Your task to perform on an android device: Show me recent news Image 0: 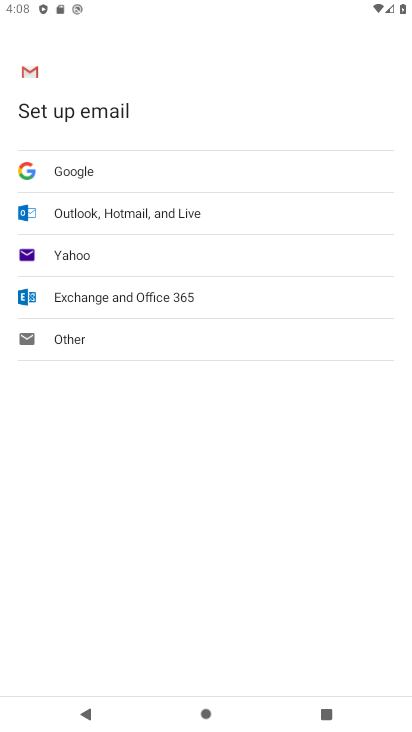
Step 0: press home button
Your task to perform on an android device: Show me recent news Image 1: 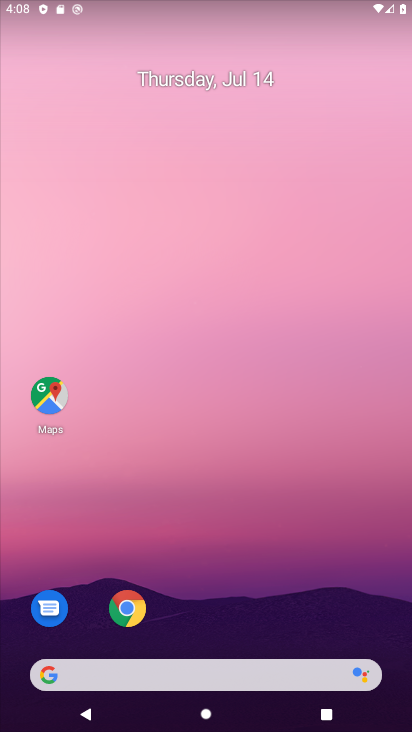
Step 1: task complete